Your task to perform on an android device: turn pop-ups on in chrome Image 0: 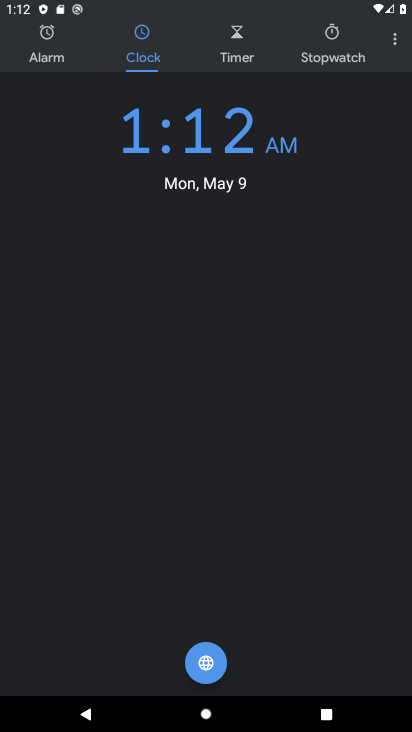
Step 0: press home button
Your task to perform on an android device: turn pop-ups on in chrome Image 1: 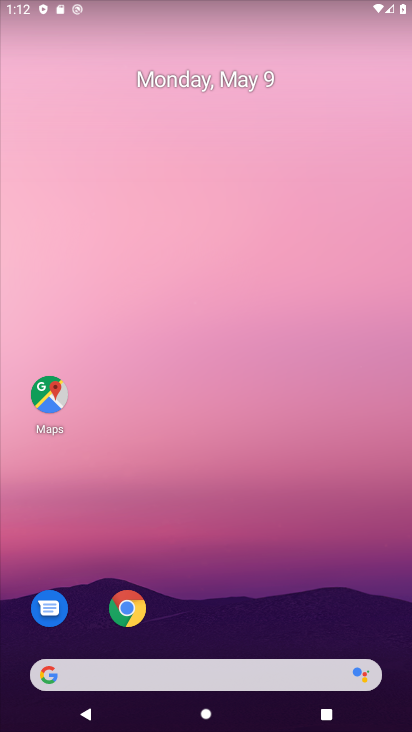
Step 1: drag from (298, 612) to (231, 29)
Your task to perform on an android device: turn pop-ups on in chrome Image 2: 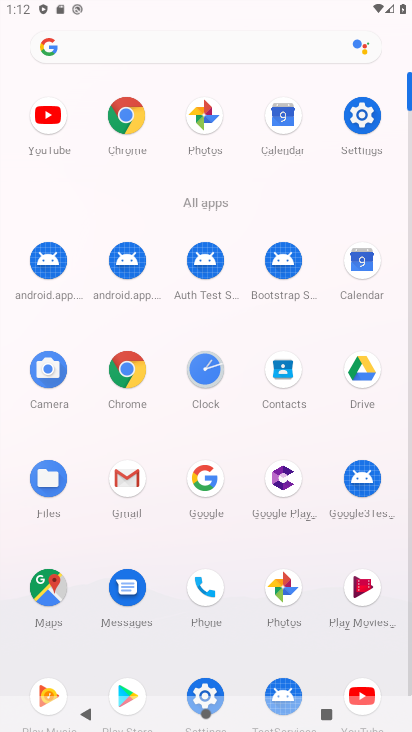
Step 2: click (128, 120)
Your task to perform on an android device: turn pop-ups on in chrome Image 3: 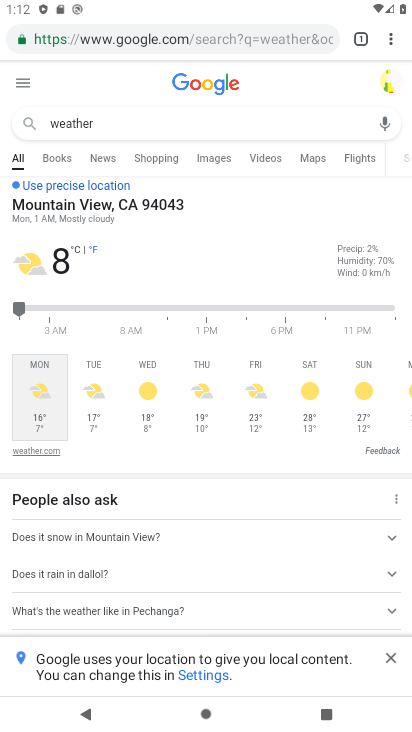
Step 3: click (394, 39)
Your task to perform on an android device: turn pop-ups on in chrome Image 4: 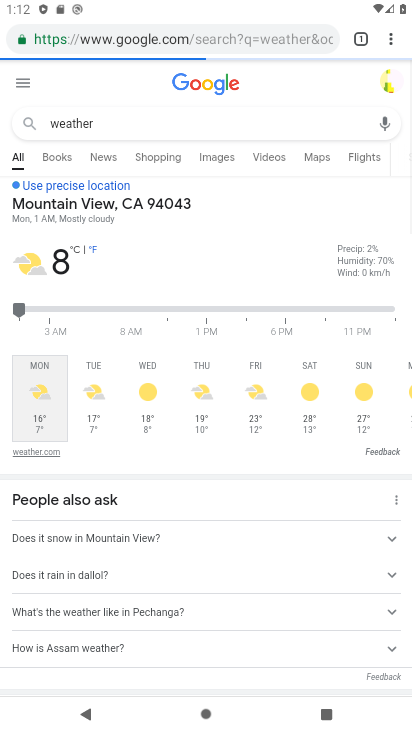
Step 4: drag from (394, 42) to (281, 431)
Your task to perform on an android device: turn pop-ups on in chrome Image 5: 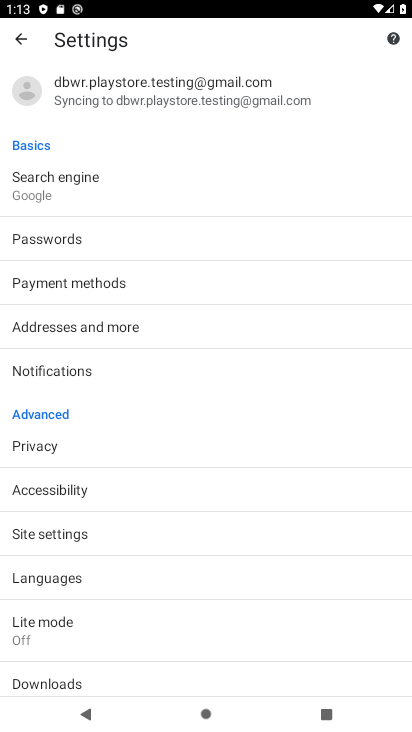
Step 5: click (66, 535)
Your task to perform on an android device: turn pop-ups on in chrome Image 6: 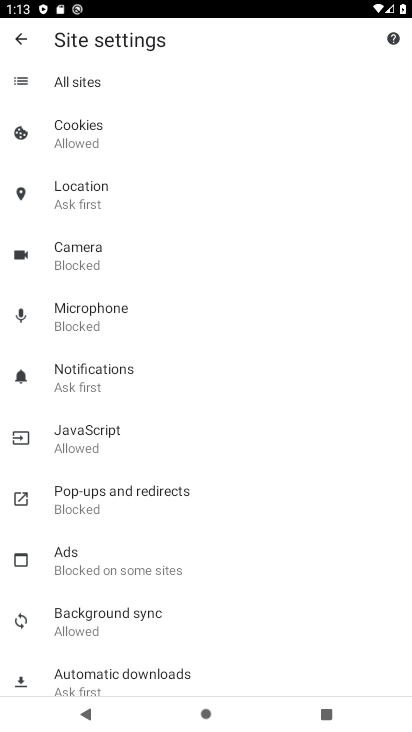
Step 6: click (111, 508)
Your task to perform on an android device: turn pop-ups on in chrome Image 7: 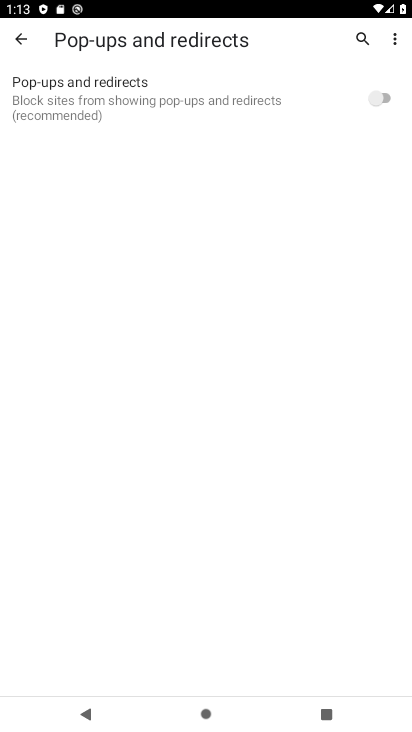
Step 7: click (351, 104)
Your task to perform on an android device: turn pop-ups on in chrome Image 8: 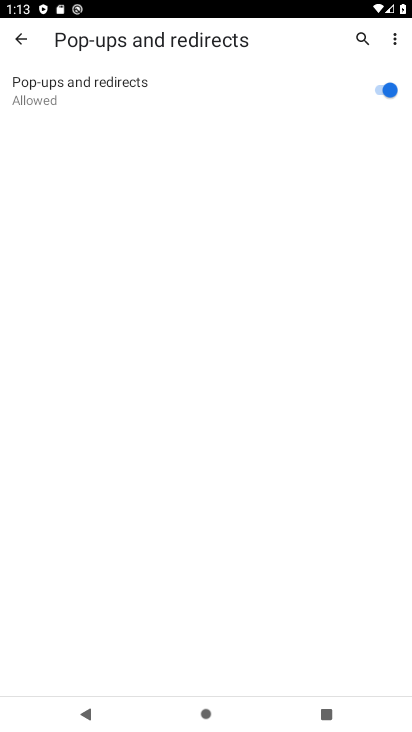
Step 8: task complete